Your task to perform on an android device: turn on sleep mode Image 0: 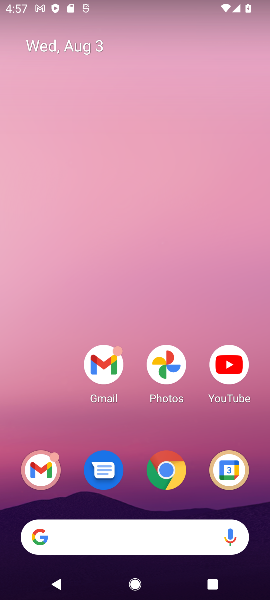
Step 0: drag from (43, 419) to (108, 81)
Your task to perform on an android device: turn on sleep mode Image 1: 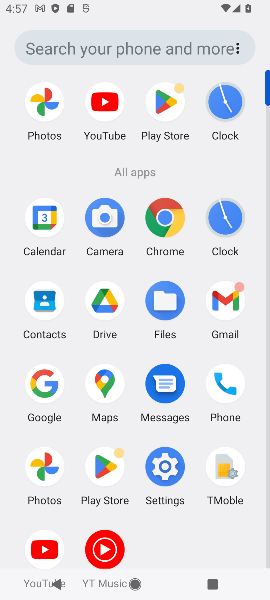
Step 1: click (169, 466)
Your task to perform on an android device: turn on sleep mode Image 2: 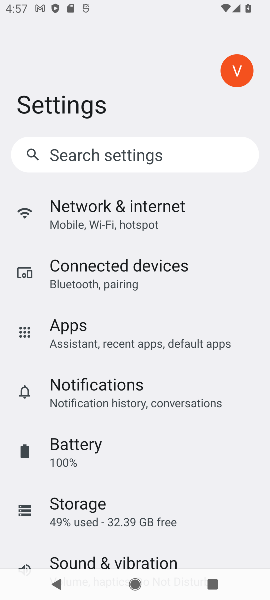
Step 2: drag from (203, 496) to (158, 184)
Your task to perform on an android device: turn on sleep mode Image 3: 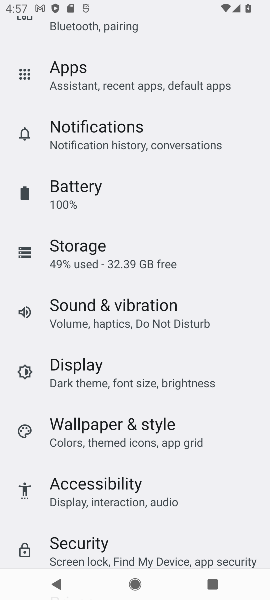
Step 3: click (101, 387)
Your task to perform on an android device: turn on sleep mode Image 4: 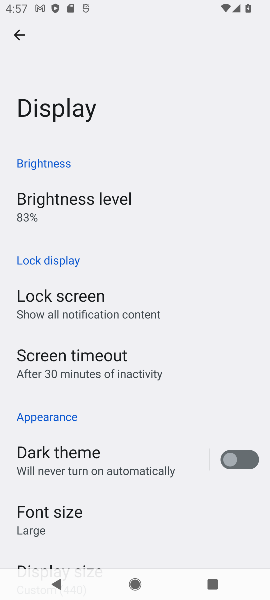
Step 4: drag from (222, 514) to (213, 207)
Your task to perform on an android device: turn on sleep mode Image 5: 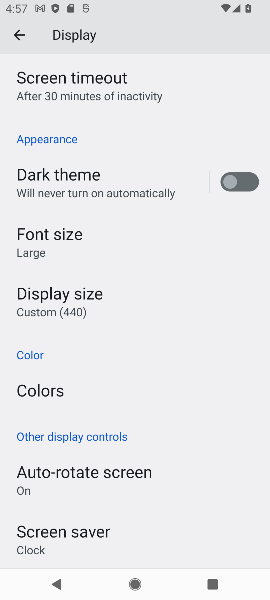
Step 5: drag from (220, 254) to (223, 438)
Your task to perform on an android device: turn on sleep mode Image 6: 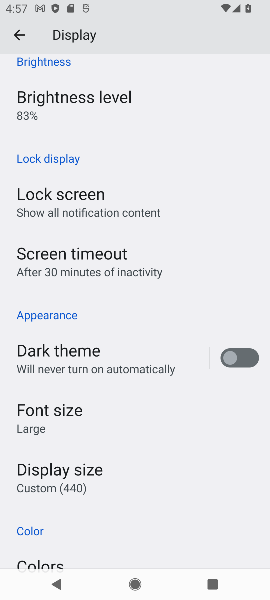
Step 6: click (70, 264)
Your task to perform on an android device: turn on sleep mode Image 7: 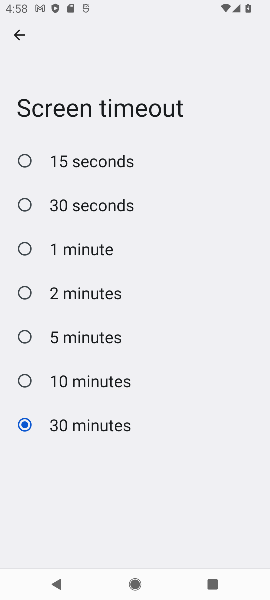
Step 7: task complete